Your task to perform on an android device: Show me productivity apps on the Play Store Image 0: 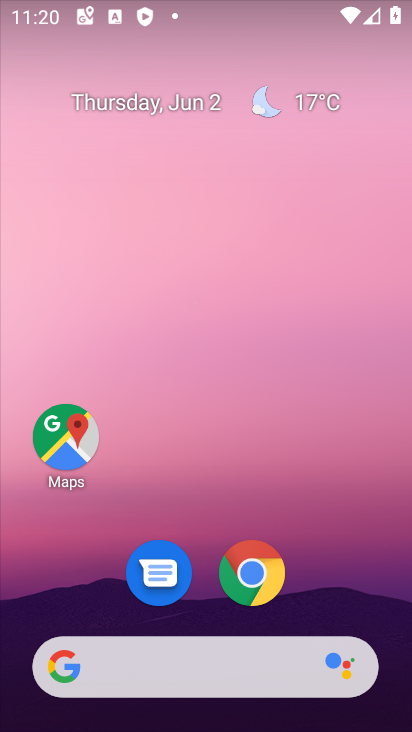
Step 0: drag from (380, 486) to (336, 70)
Your task to perform on an android device: Show me productivity apps on the Play Store Image 1: 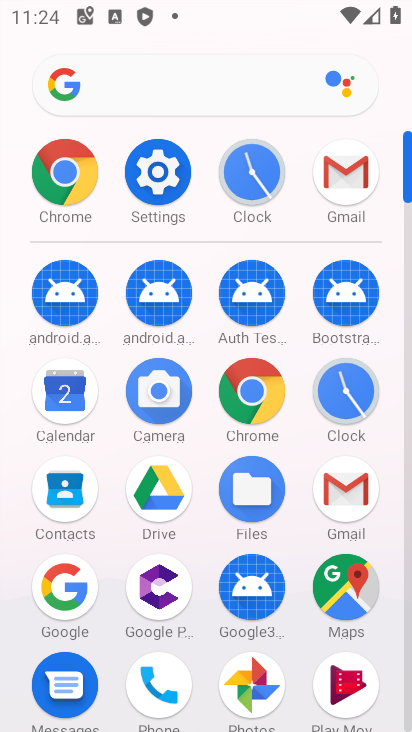
Step 1: drag from (401, 634) to (403, 408)
Your task to perform on an android device: Show me productivity apps on the Play Store Image 2: 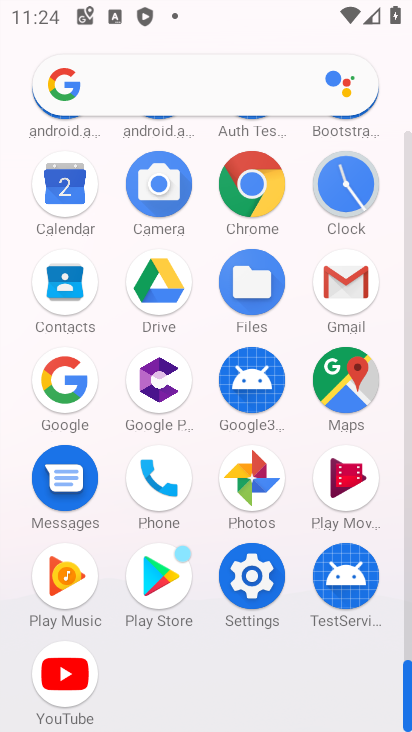
Step 2: click (146, 704)
Your task to perform on an android device: Show me productivity apps on the Play Store Image 3: 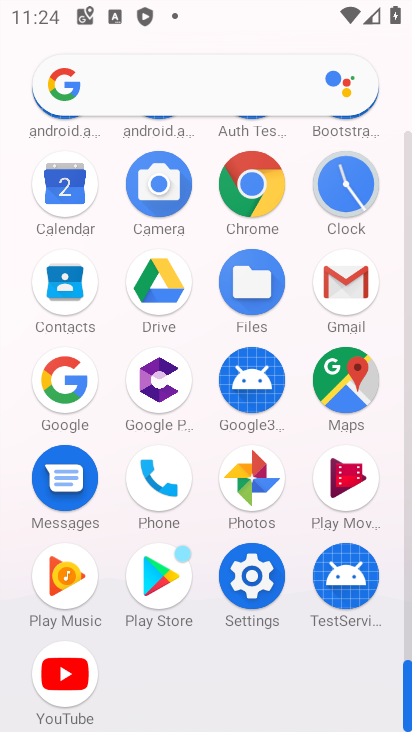
Step 3: click (174, 592)
Your task to perform on an android device: Show me productivity apps on the Play Store Image 4: 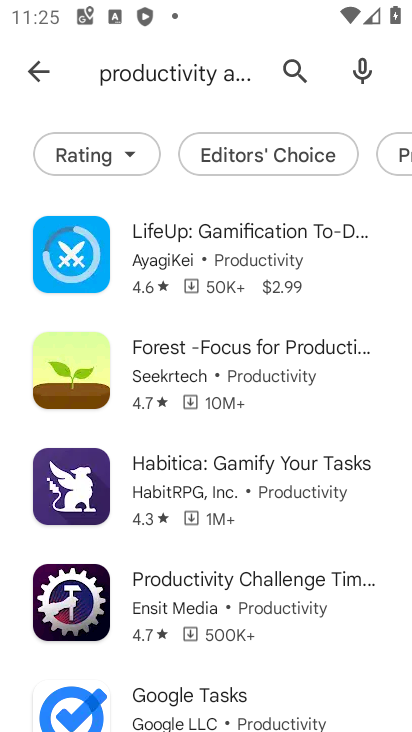
Step 4: task complete